Your task to perform on an android device: Go to notification settings Image 0: 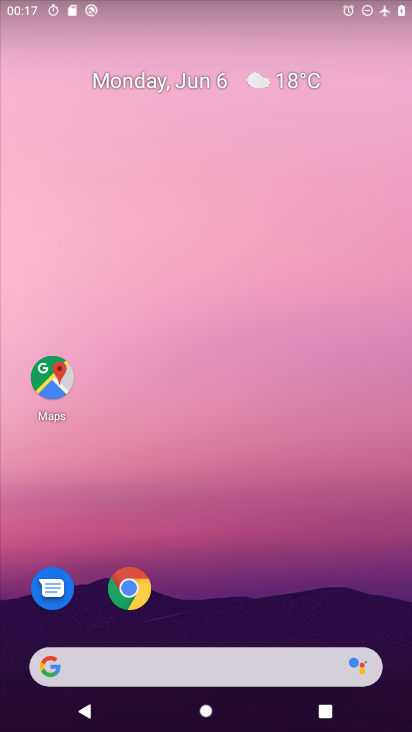
Step 0: drag from (373, 584) to (376, 131)
Your task to perform on an android device: Go to notification settings Image 1: 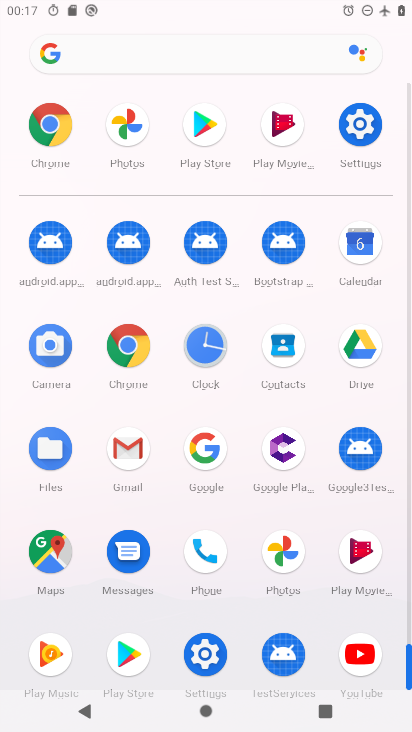
Step 1: click (353, 143)
Your task to perform on an android device: Go to notification settings Image 2: 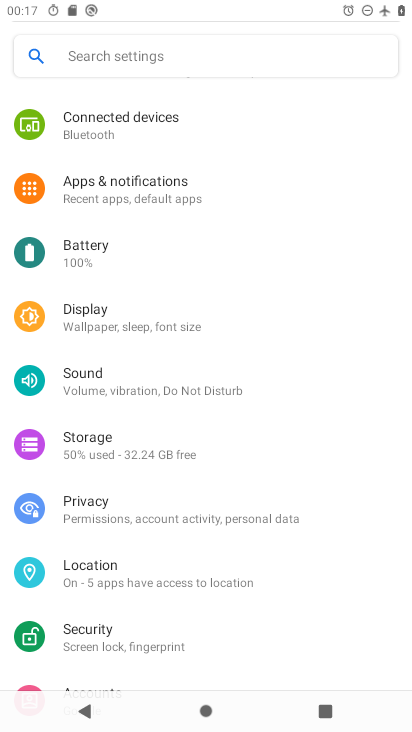
Step 2: drag from (312, 482) to (321, 333)
Your task to perform on an android device: Go to notification settings Image 3: 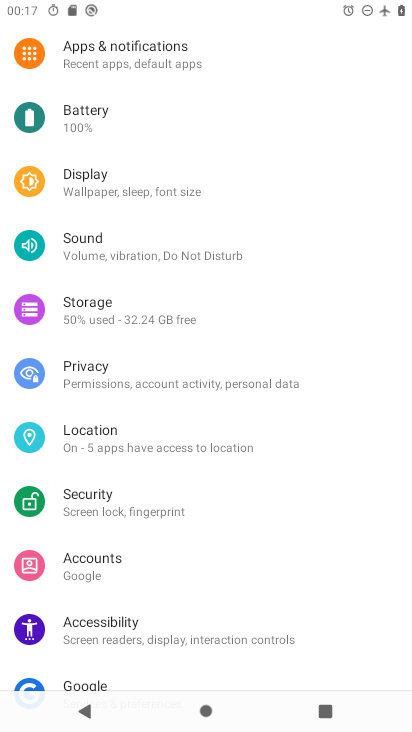
Step 3: drag from (310, 468) to (321, 365)
Your task to perform on an android device: Go to notification settings Image 4: 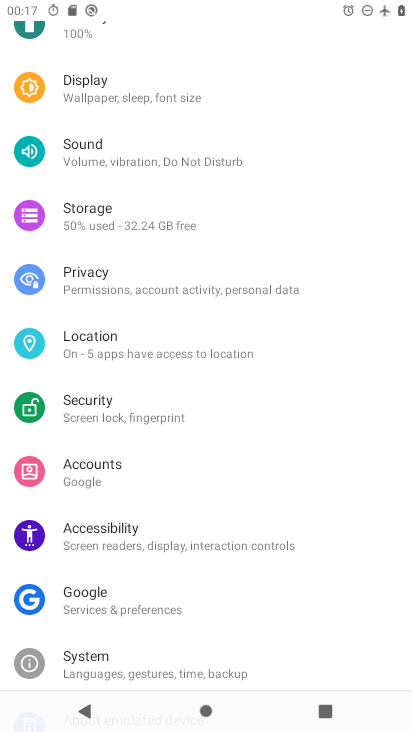
Step 4: drag from (337, 506) to (358, 373)
Your task to perform on an android device: Go to notification settings Image 5: 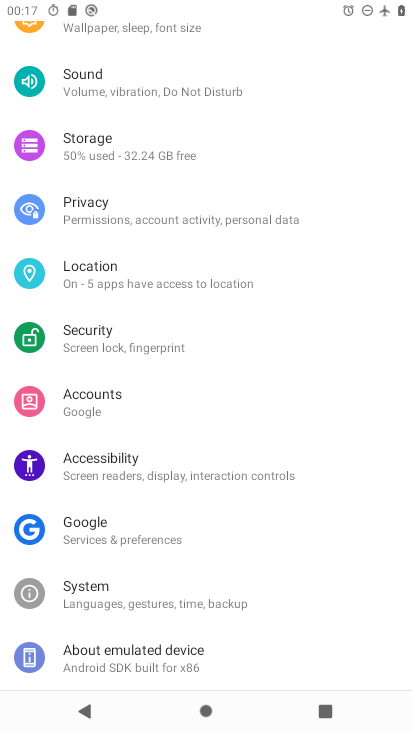
Step 5: drag from (349, 307) to (340, 405)
Your task to perform on an android device: Go to notification settings Image 6: 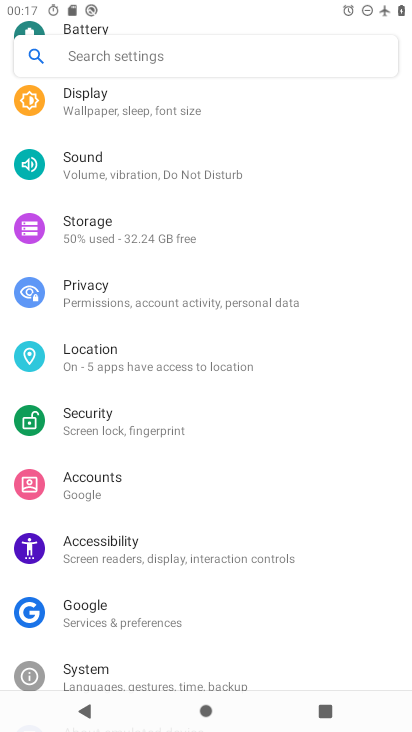
Step 6: drag from (339, 234) to (332, 337)
Your task to perform on an android device: Go to notification settings Image 7: 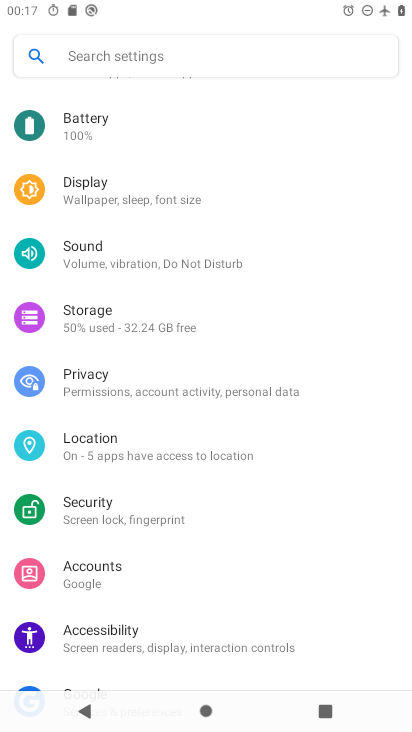
Step 7: drag from (333, 204) to (333, 323)
Your task to perform on an android device: Go to notification settings Image 8: 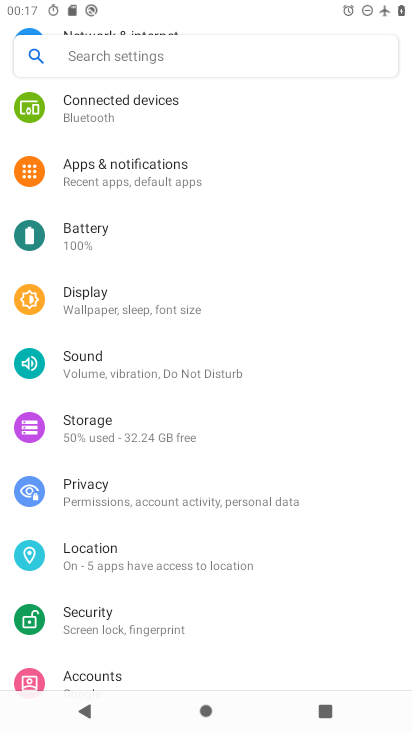
Step 8: drag from (333, 194) to (327, 320)
Your task to perform on an android device: Go to notification settings Image 9: 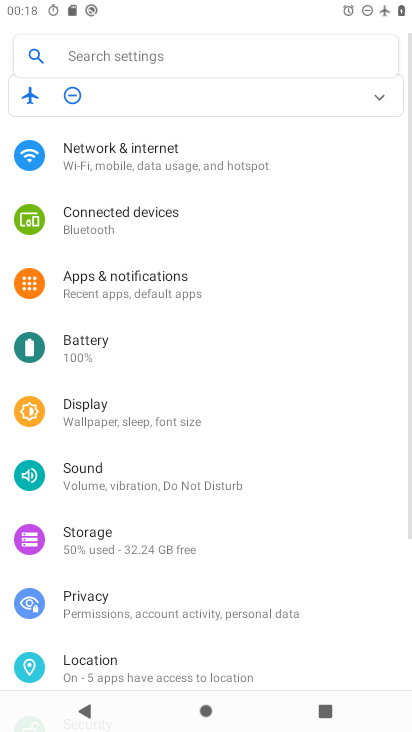
Step 9: click (171, 285)
Your task to perform on an android device: Go to notification settings Image 10: 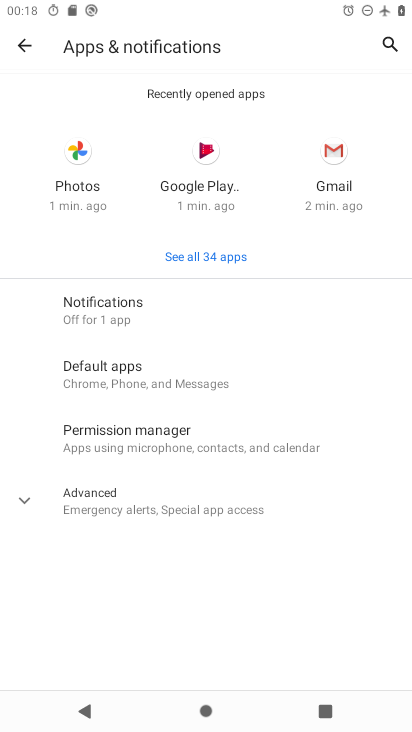
Step 10: click (125, 320)
Your task to perform on an android device: Go to notification settings Image 11: 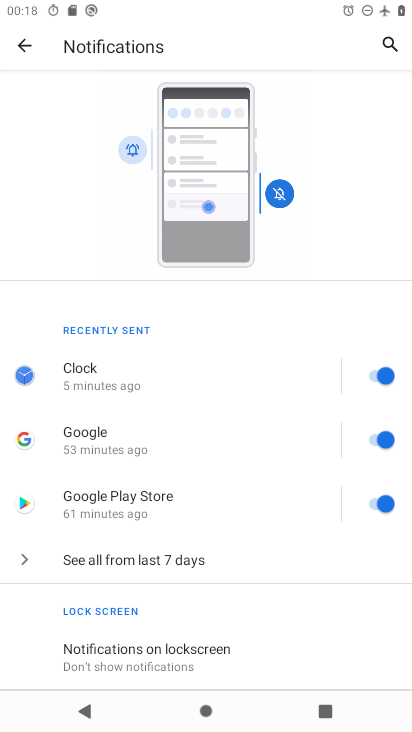
Step 11: task complete